Your task to perform on an android device: Open the calendar app, open the side menu, and click the "Day" option Image 0: 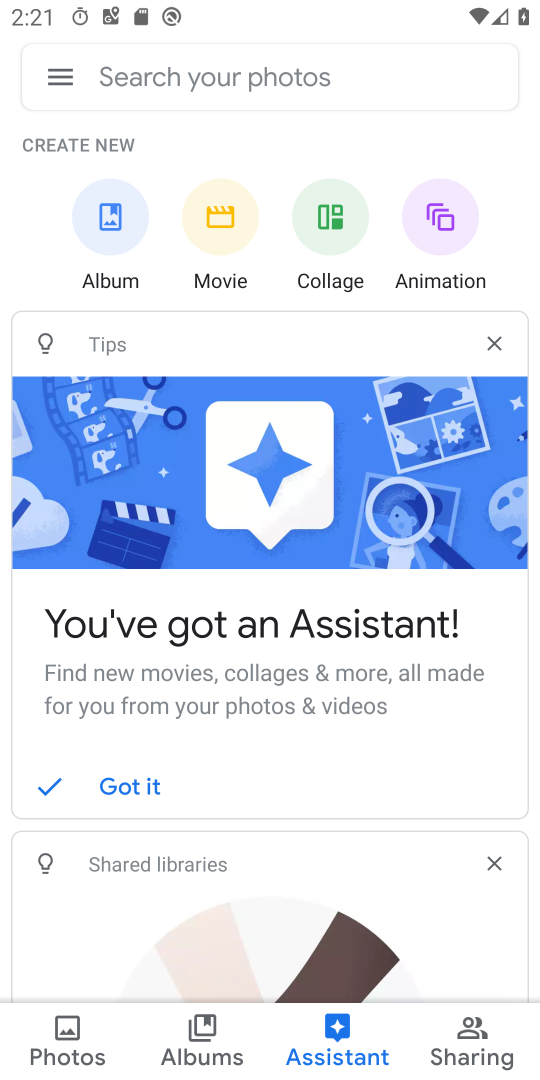
Step 0: press home button
Your task to perform on an android device: Open the calendar app, open the side menu, and click the "Day" option Image 1: 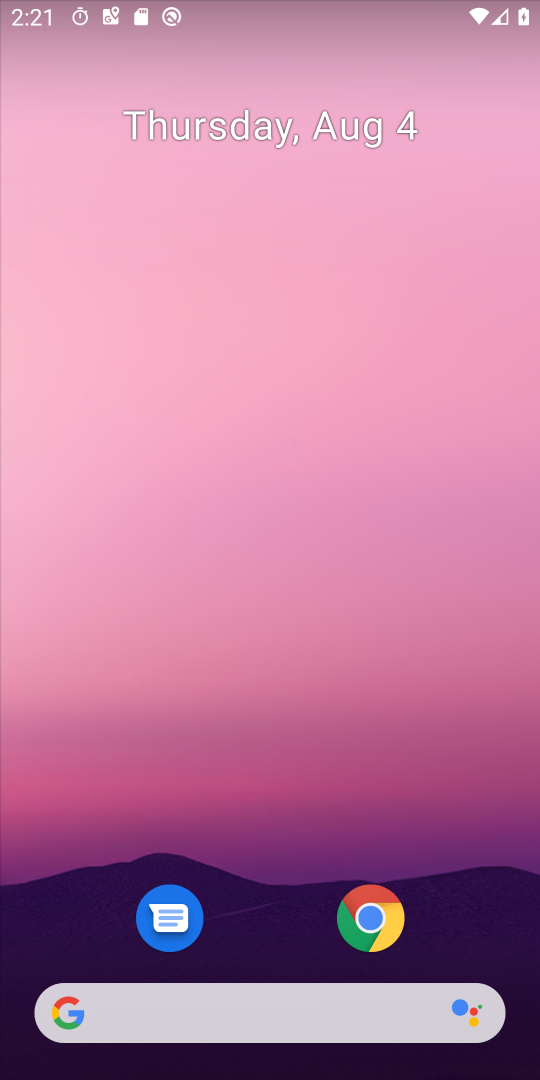
Step 1: drag from (245, 943) to (257, 452)
Your task to perform on an android device: Open the calendar app, open the side menu, and click the "Day" option Image 2: 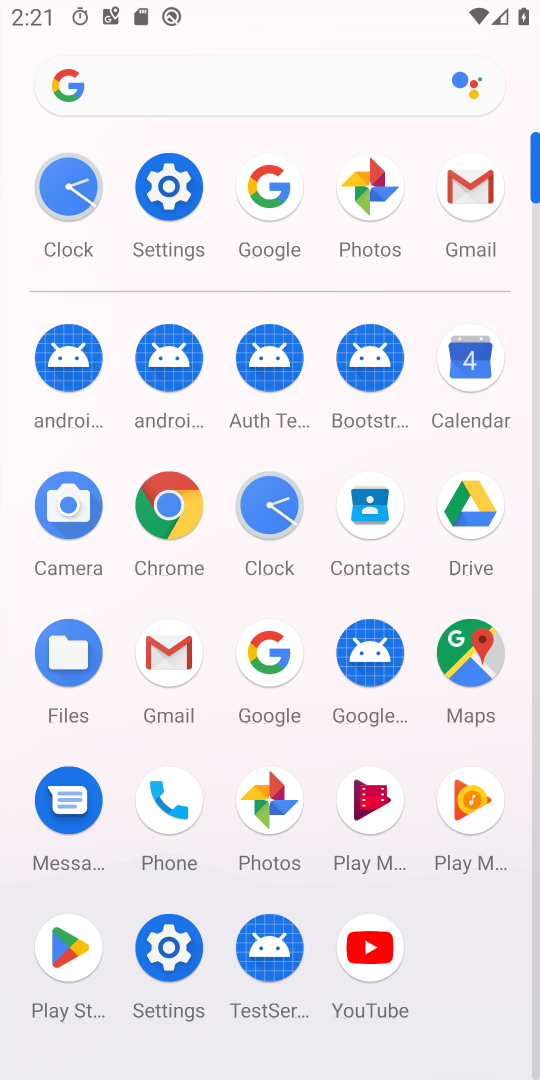
Step 2: click (454, 414)
Your task to perform on an android device: Open the calendar app, open the side menu, and click the "Day" option Image 3: 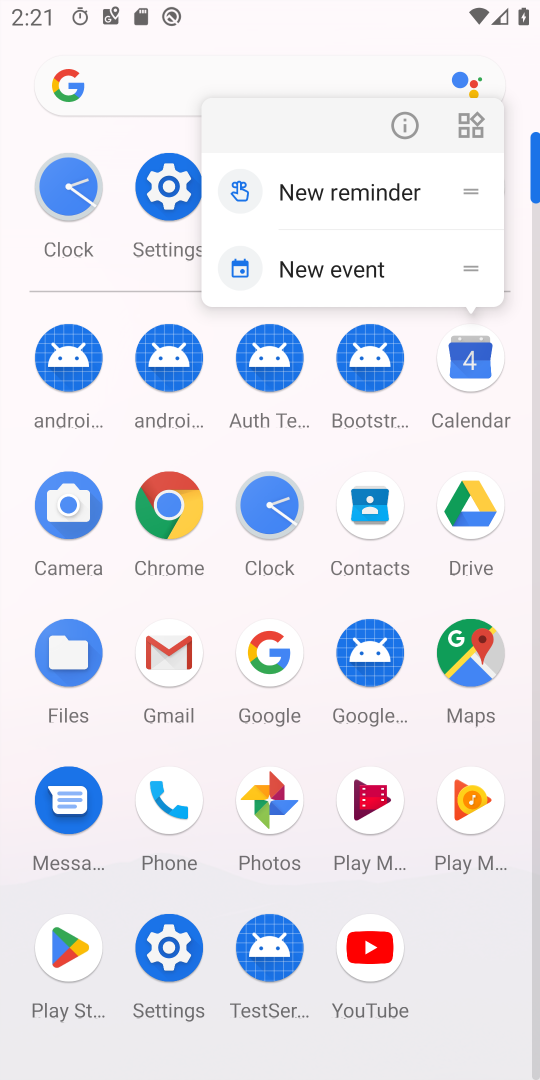
Step 3: click (456, 419)
Your task to perform on an android device: Open the calendar app, open the side menu, and click the "Day" option Image 4: 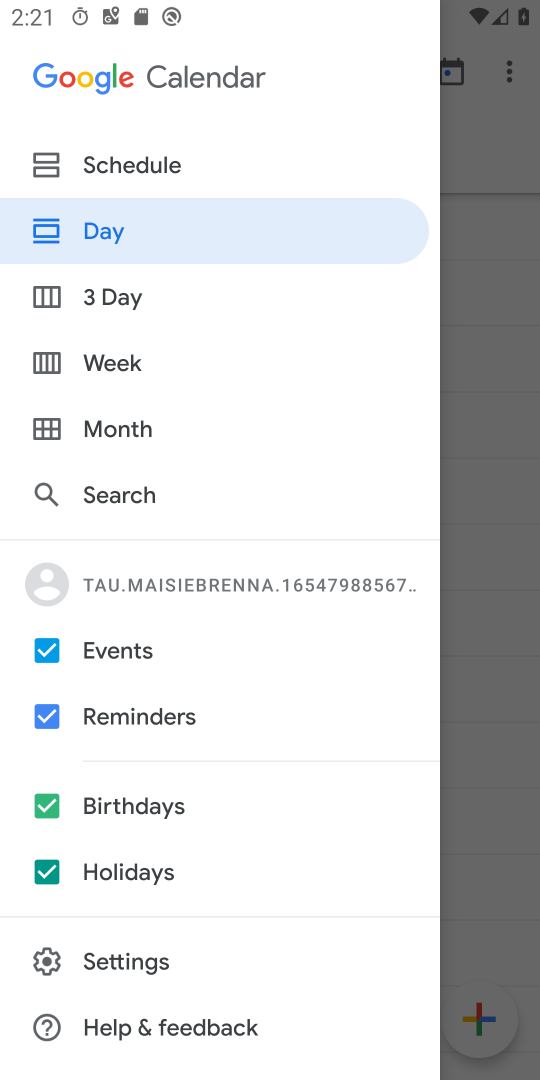
Step 4: click (246, 245)
Your task to perform on an android device: Open the calendar app, open the side menu, and click the "Day" option Image 5: 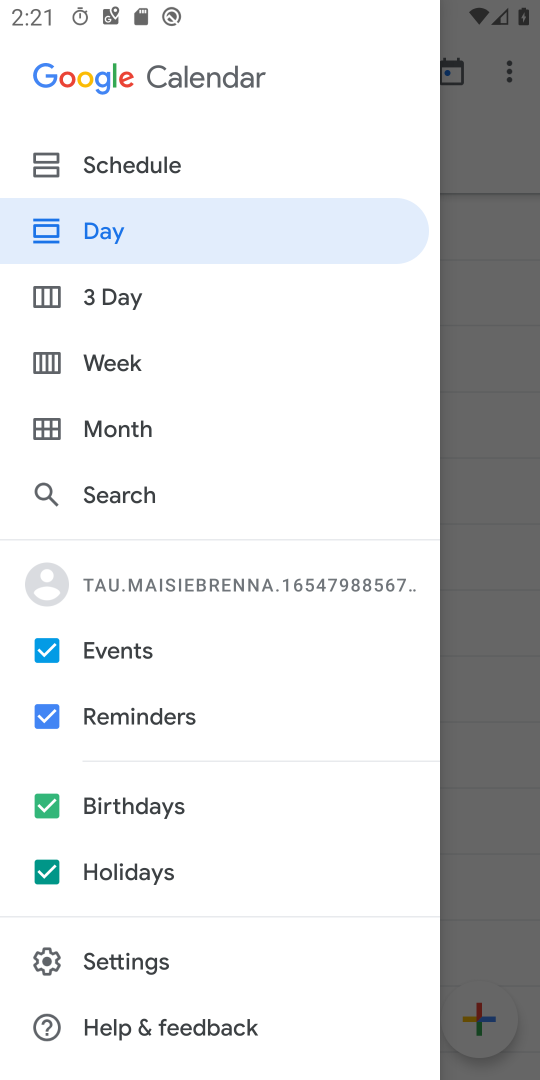
Step 5: task complete